Your task to perform on an android device: Open calendar and show me the fourth week of next month Image 0: 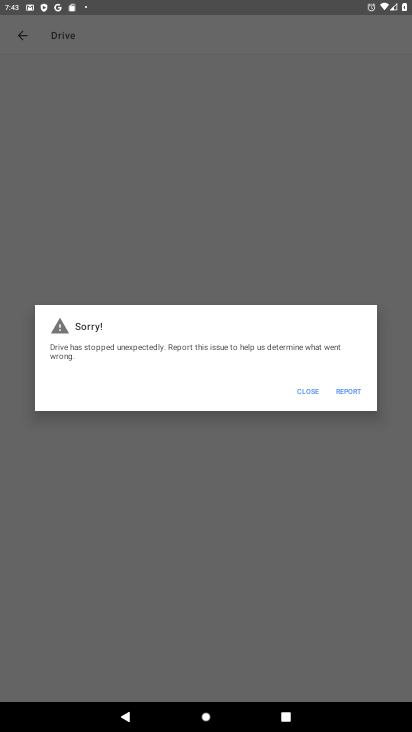
Step 0: press home button
Your task to perform on an android device: Open calendar and show me the fourth week of next month Image 1: 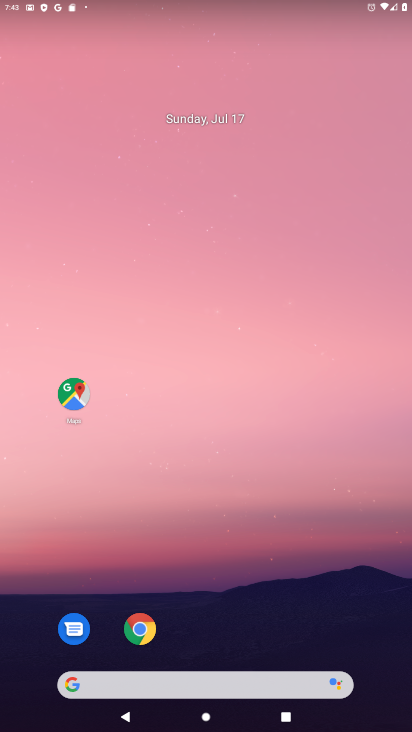
Step 1: drag from (204, 656) to (176, 129)
Your task to perform on an android device: Open calendar and show me the fourth week of next month Image 2: 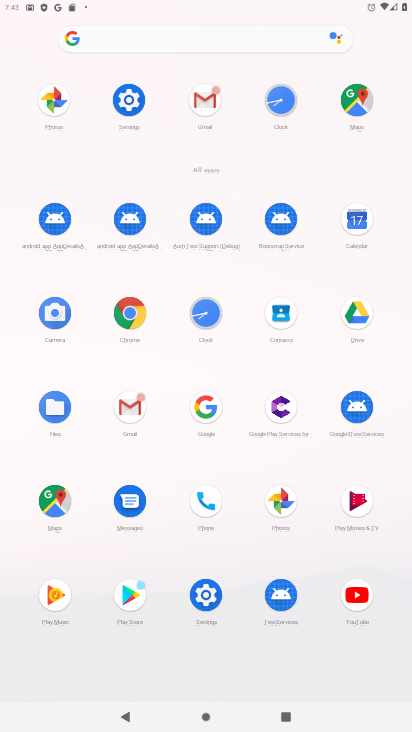
Step 2: click (360, 211)
Your task to perform on an android device: Open calendar and show me the fourth week of next month Image 3: 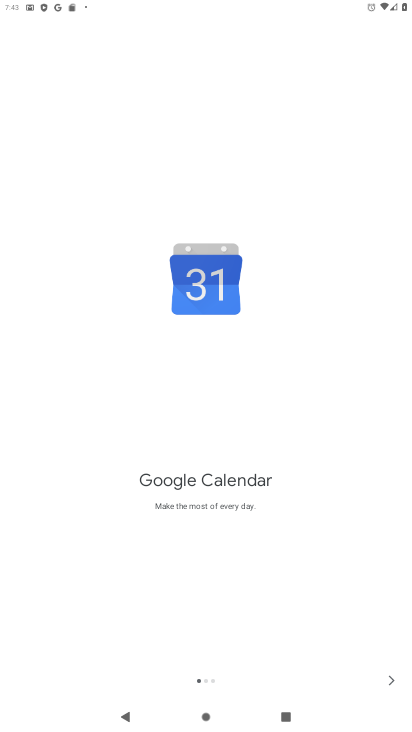
Step 3: click (397, 679)
Your task to perform on an android device: Open calendar and show me the fourth week of next month Image 4: 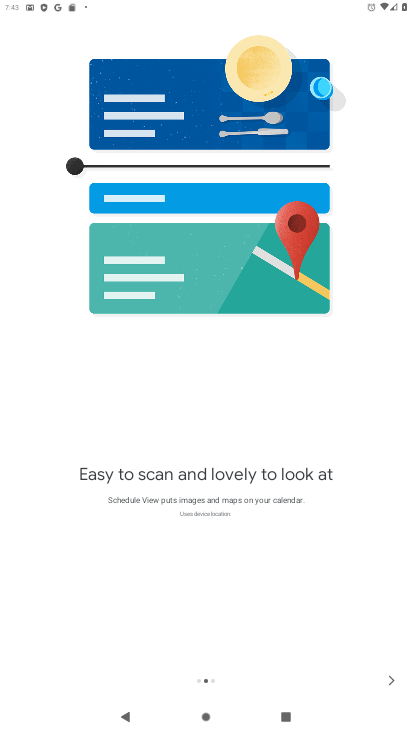
Step 4: click (391, 680)
Your task to perform on an android device: Open calendar and show me the fourth week of next month Image 5: 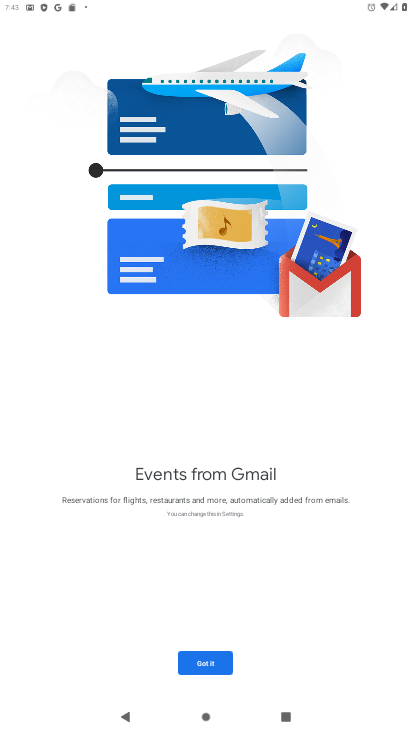
Step 5: click (203, 665)
Your task to perform on an android device: Open calendar and show me the fourth week of next month Image 6: 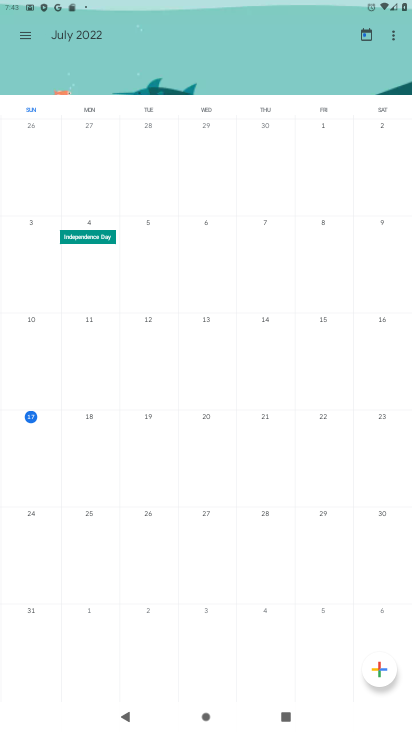
Step 6: click (32, 33)
Your task to perform on an android device: Open calendar and show me the fourth week of next month Image 7: 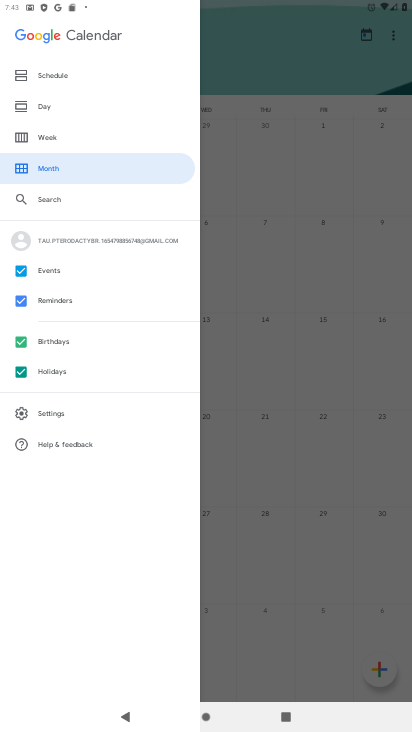
Step 7: click (58, 138)
Your task to perform on an android device: Open calendar and show me the fourth week of next month Image 8: 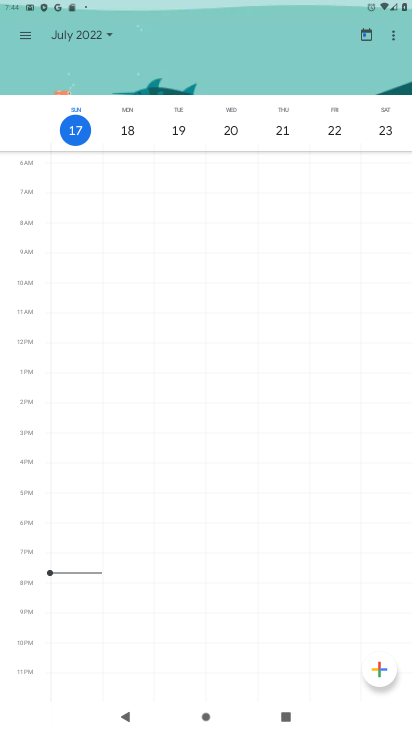
Step 8: task complete